Your task to perform on an android device: turn off translation in the chrome app Image 0: 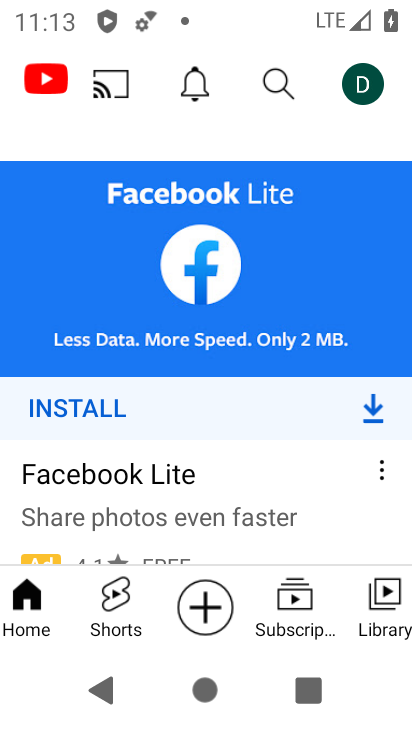
Step 0: press home button
Your task to perform on an android device: turn off translation in the chrome app Image 1: 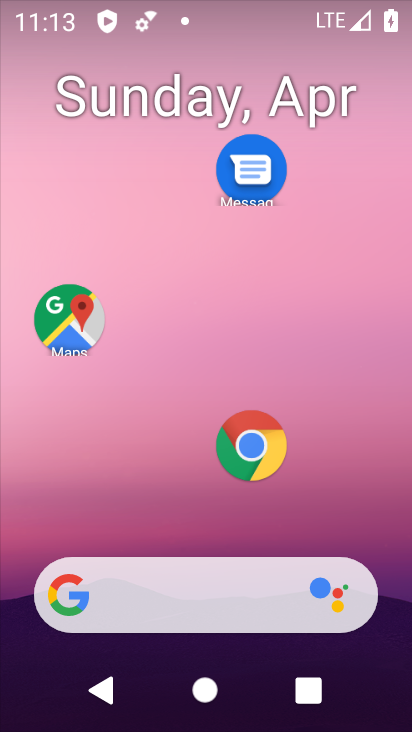
Step 1: click (252, 443)
Your task to perform on an android device: turn off translation in the chrome app Image 2: 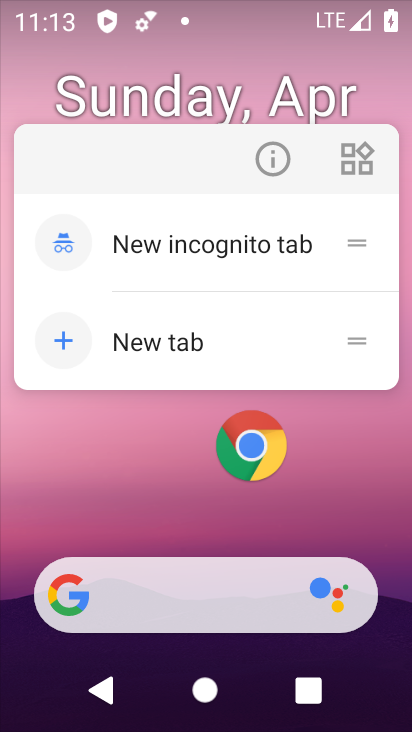
Step 2: click (249, 465)
Your task to perform on an android device: turn off translation in the chrome app Image 3: 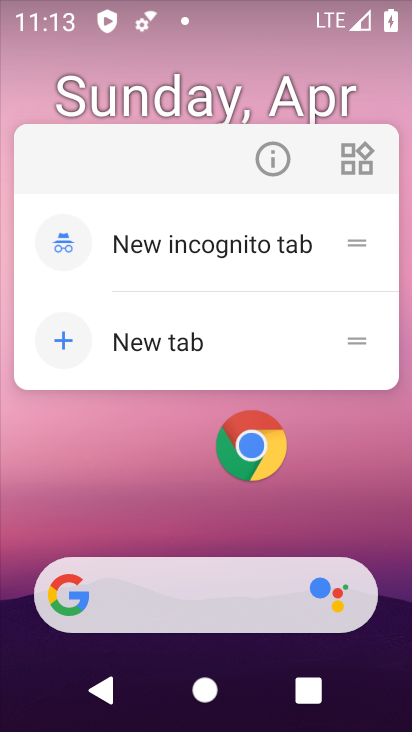
Step 3: click (249, 465)
Your task to perform on an android device: turn off translation in the chrome app Image 4: 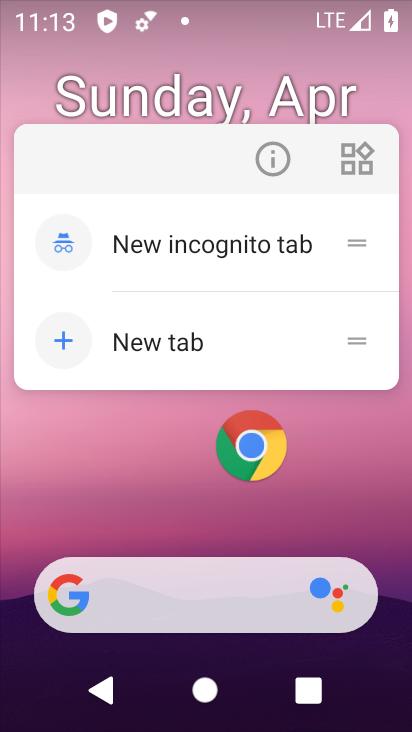
Step 4: click (258, 448)
Your task to perform on an android device: turn off translation in the chrome app Image 5: 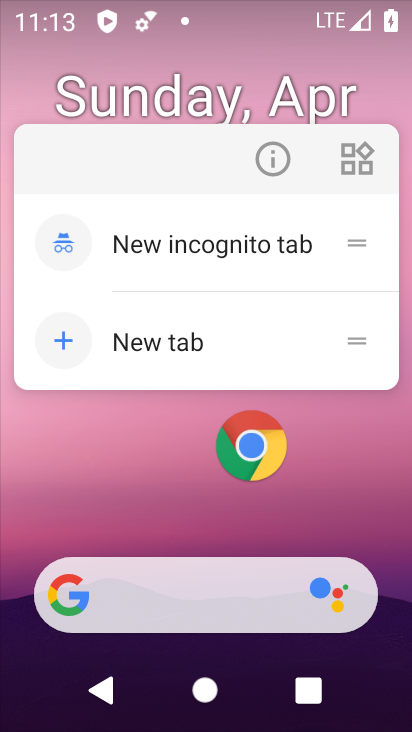
Step 5: click (254, 460)
Your task to perform on an android device: turn off translation in the chrome app Image 6: 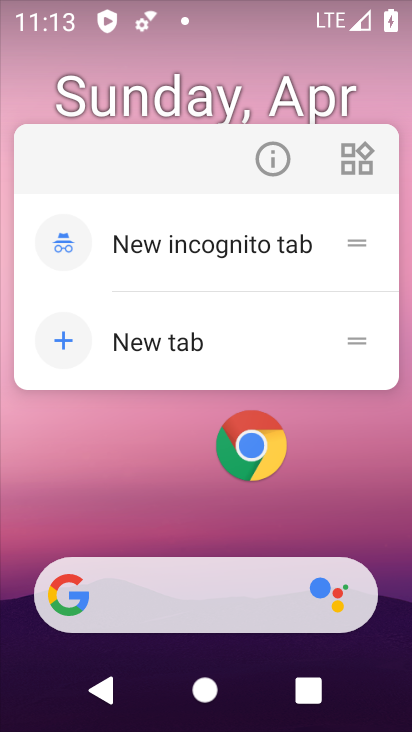
Step 6: click (253, 464)
Your task to perform on an android device: turn off translation in the chrome app Image 7: 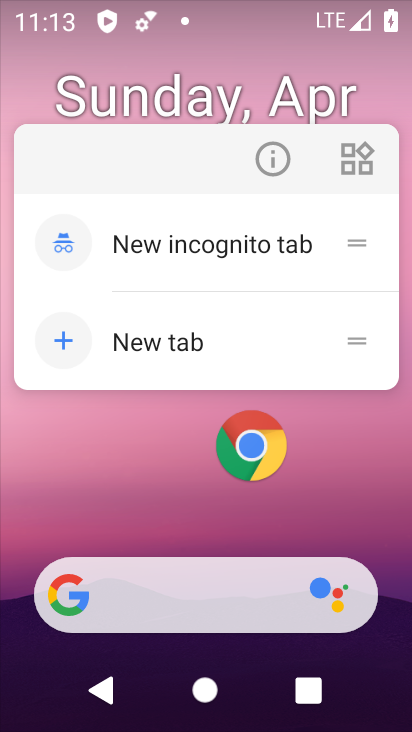
Step 7: click (251, 467)
Your task to perform on an android device: turn off translation in the chrome app Image 8: 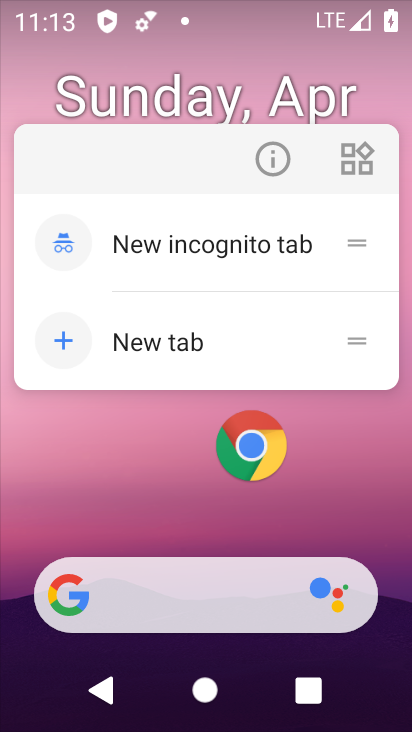
Step 8: click (250, 458)
Your task to perform on an android device: turn off translation in the chrome app Image 9: 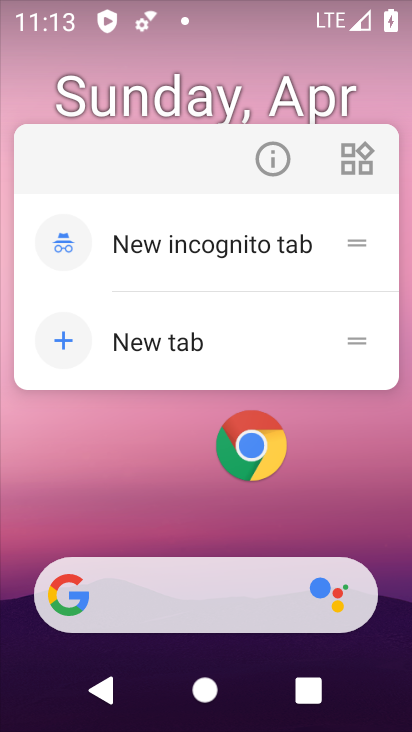
Step 9: click (255, 461)
Your task to perform on an android device: turn off translation in the chrome app Image 10: 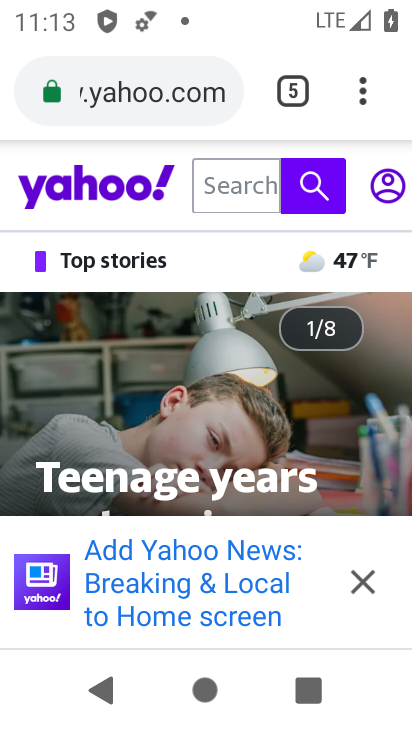
Step 10: drag from (361, 94) to (169, 472)
Your task to perform on an android device: turn off translation in the chrome app Image 11: 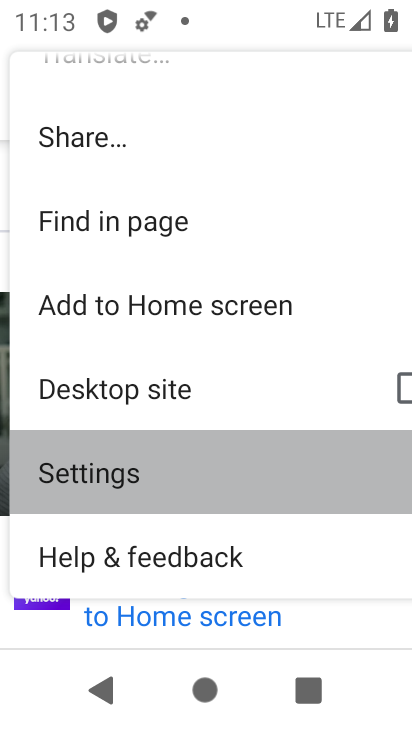
Step 11: click (169, 472)
Your task to perform on an android device: turn off translation in the chrome app Image 12: 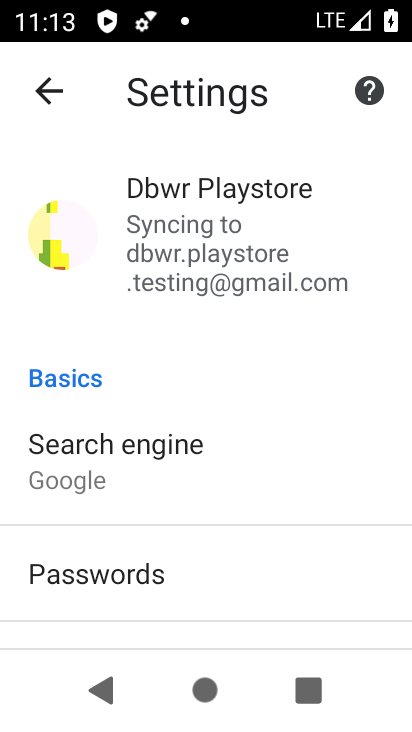
Step 12: drag from (183, 565) to (283, 155)
Your task to perform on an android device: turn off translation in the chrome app Image 13: 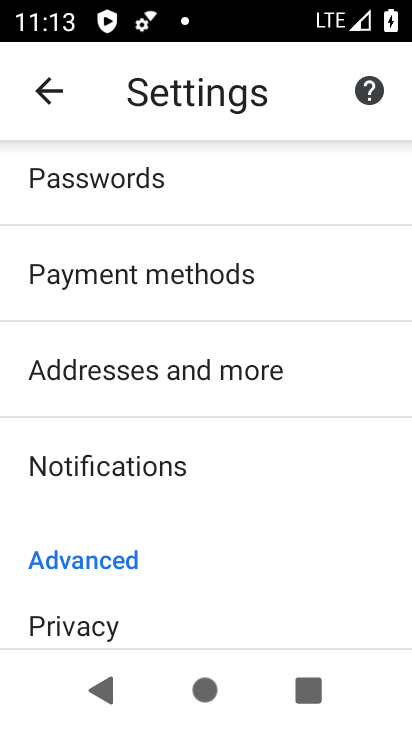
Step 13: drag from (176, 603) to (305, 274)
Your task to perform on an android device: turn off translation in the chrome app Image 14: 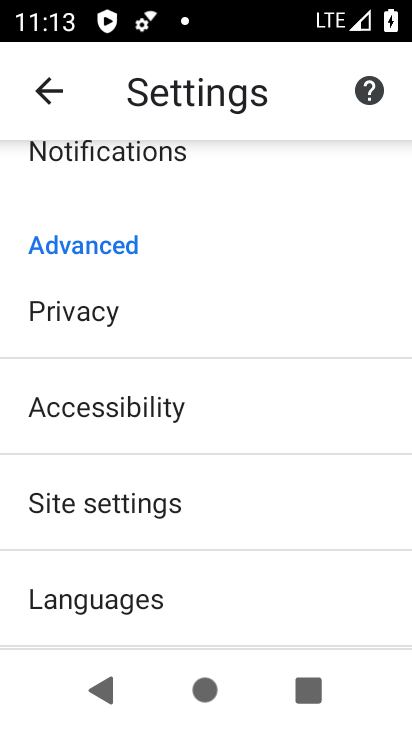
Step 14: click (163, 605)
Your task to perform on an android device: turn off translation in the chrome app Image 15: 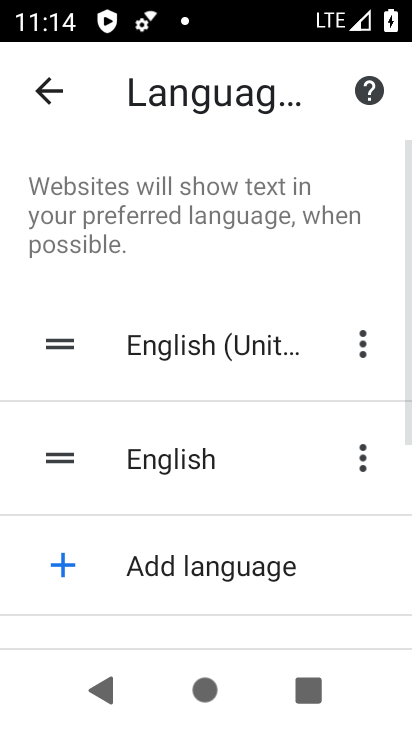
Step 15: task complete